Your task to perform on an android device: Open Wikipedia Image 0: 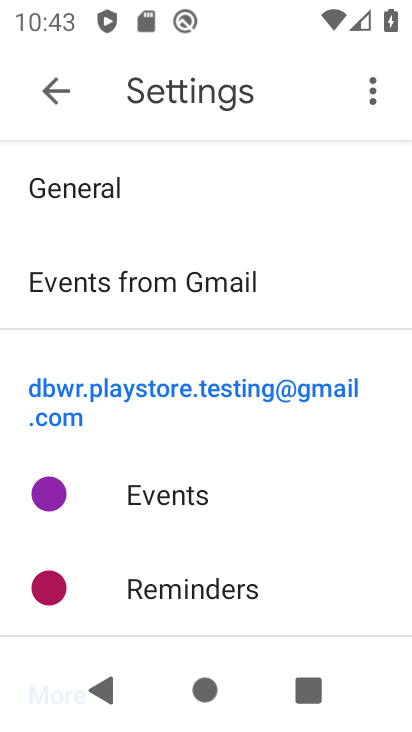
Step 0: press back button
Your task to perform on an android device: Open Wikipedia Image 1: 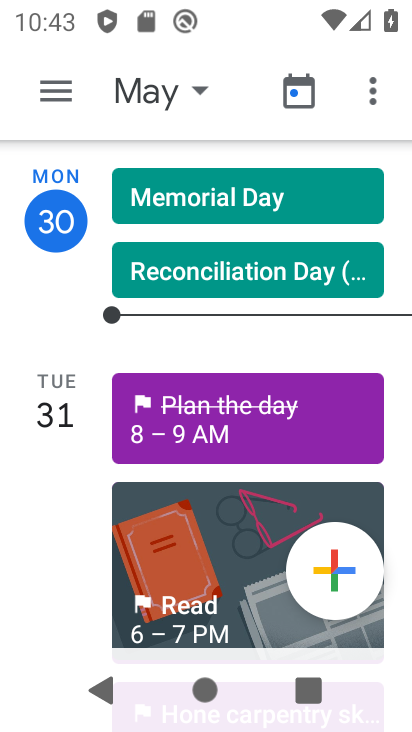
Step 1: press back button
Your task to perform on an android device: Open Wikipedia Image 2: 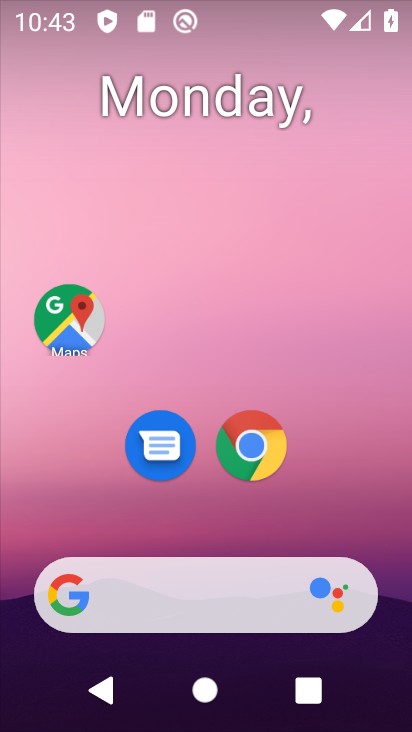
Step 2: click (266, 431)
Your task to perform on an android device: Open Wikipedia Image 3: 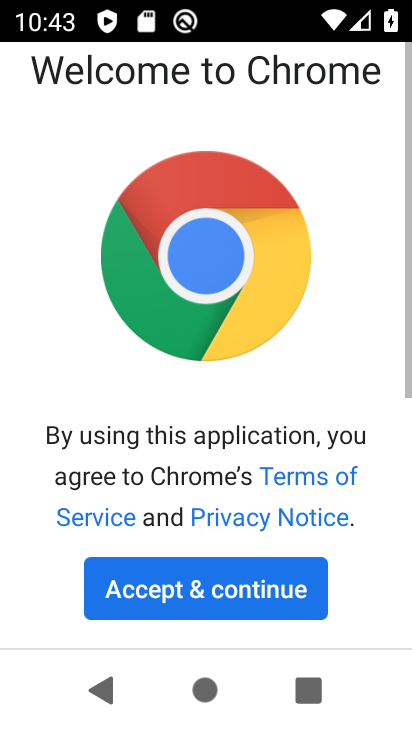
Step 3: click (198, 600)
Your task to perform on an android device: Open Wikipedia Image 4: 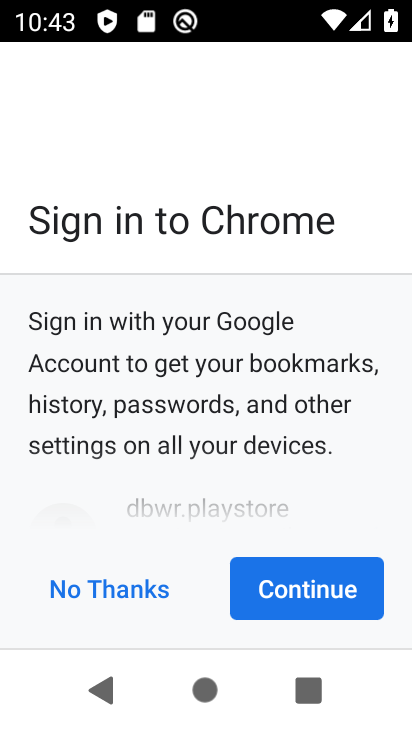
Step 4: click (302, 584)
Your task to perform on an android device: Open Wikipedia Image 5: 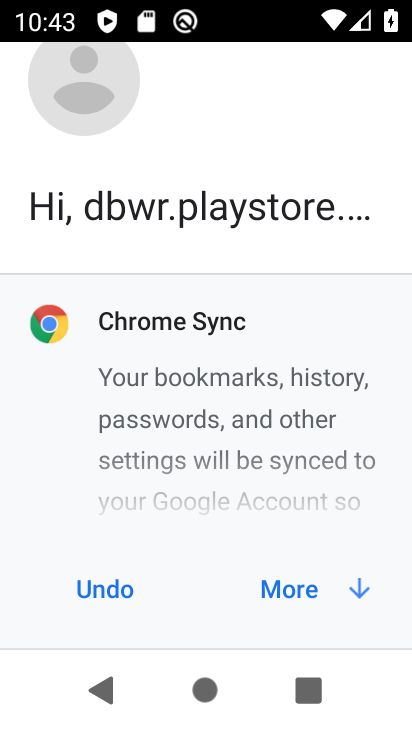
Step 5: click (305, 583)
Your task to perform on an android device: Open Wikipedia Image 6: 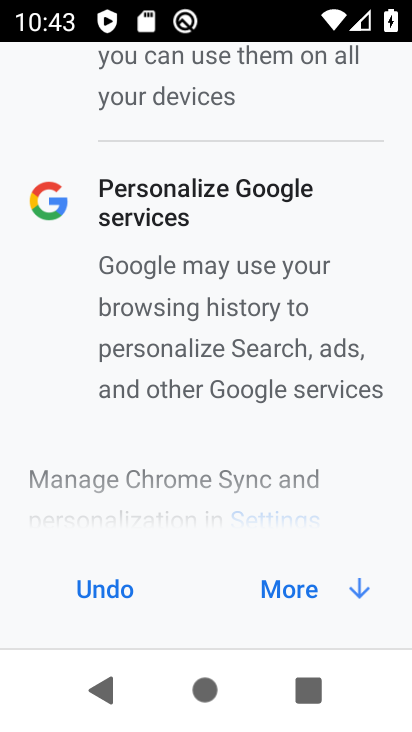
Step 6: click (305, 583)
Your task to perform on an android device: Open Wikipedia Image 7: 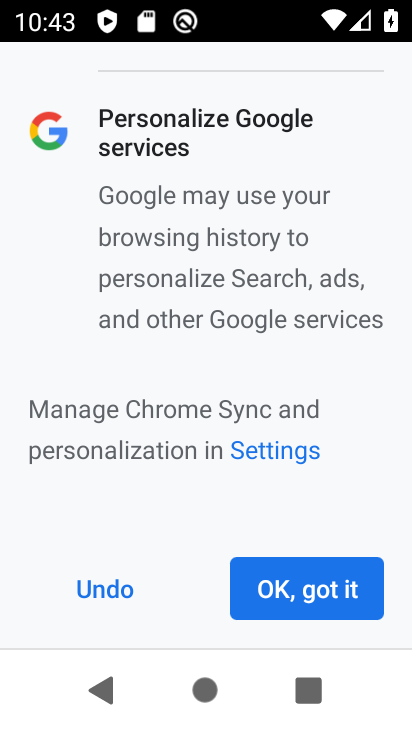
Step 7: click (308, 585)
Your task to perform on an android device: Open Wikipedia Image 8: 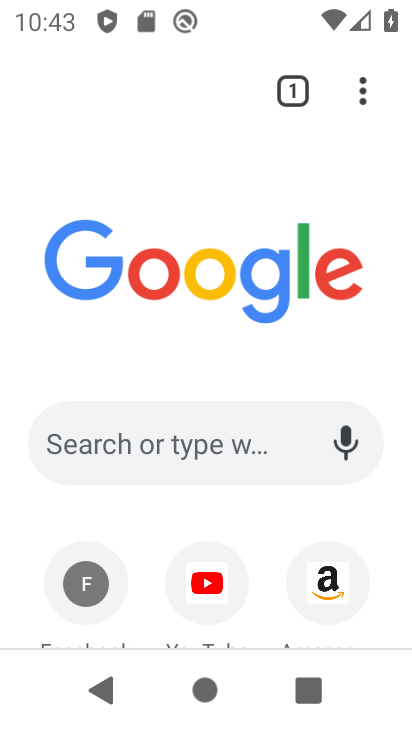
Step 8: drag from (192, 516) to (300, 128)
Your task to perform on an android device: Open Wikipedia Image 9: 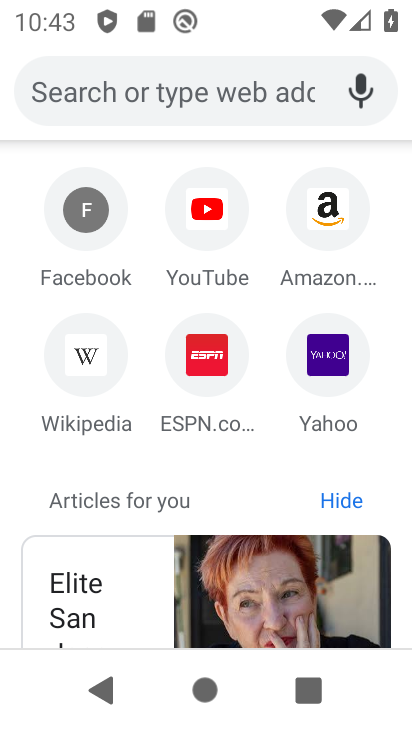
Step 9: click (79, 353)
Your task to perform on an android device: Open Wikipedia Image 10: 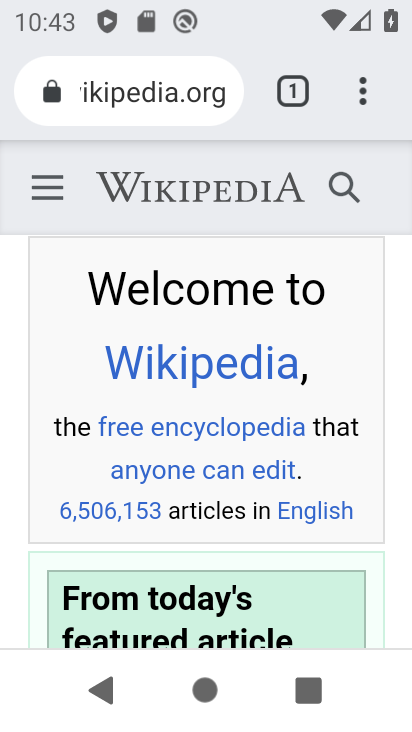
Step 10: task complete